Your task to perform on an android device: Open calendar and show me the first week of next month Image 0: 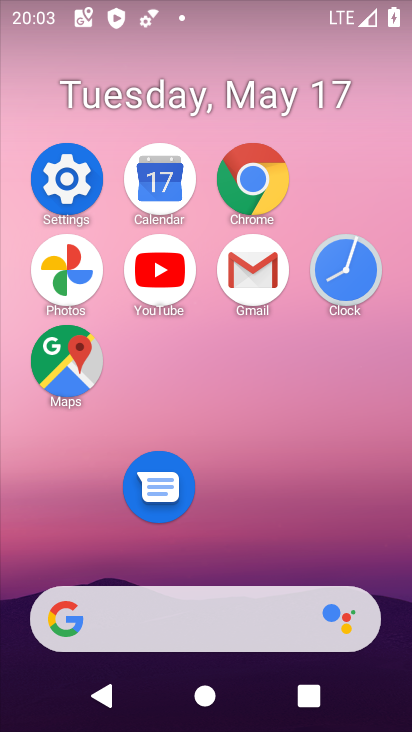
Step 0: click (198, 196)
Your task to perform on an android device: Open calendar and show me the first week of next month Image 1: 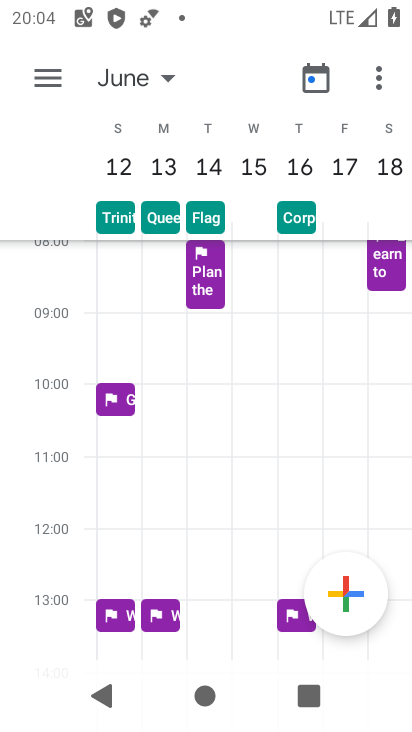
Step 1: task complete